Your task to perform on an android device: What's the weather today? Image 0: 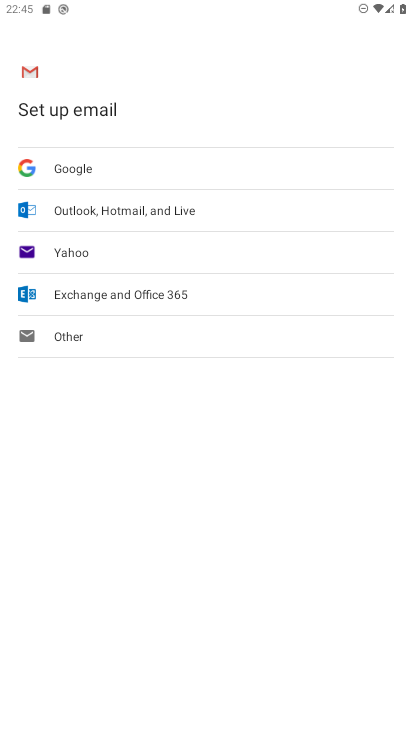
Step 0: press home button
Your task to perform on an android device: What's the weather today? Image 1: 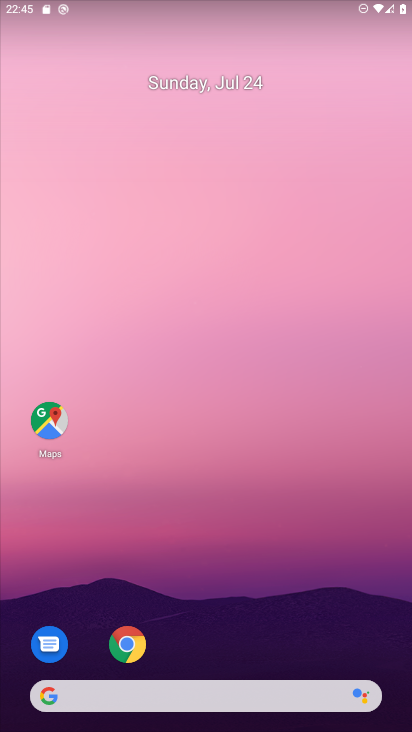
Step 1: click (88, 699)
Your task to perform on an android device: What's the weather today? Image 2: 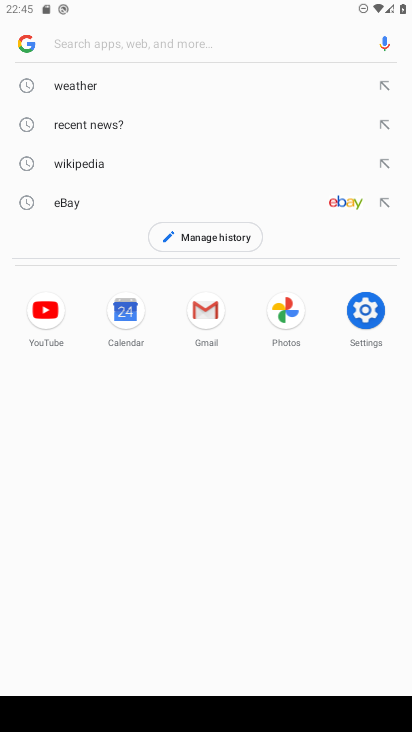
Step 2: click (59, 87)
Your task to perform on an android device: What's the weather today? Image 3: 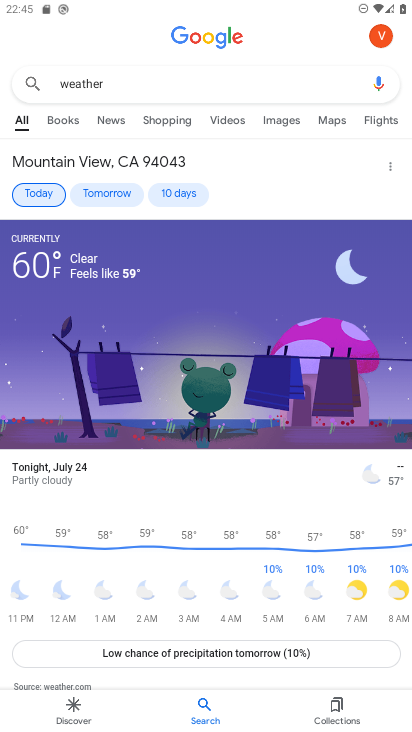
Step 3: task complete